Your task to perform on an android device: add a contact Image 0: 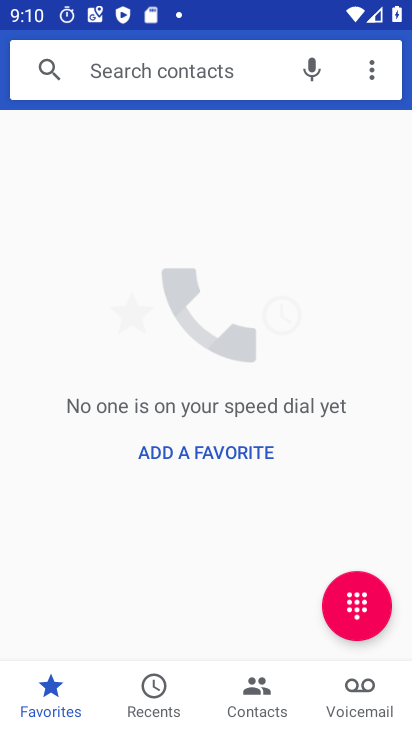
Step 0: press home button
Your task to perform on an android device: add a contact Image 1: 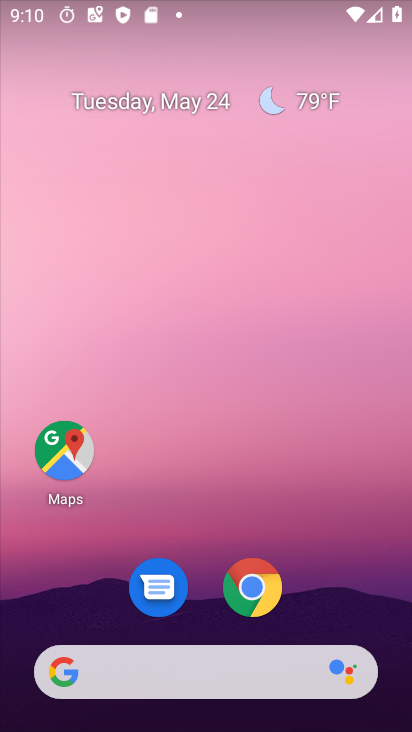
Step 1: drag from (314, 590) to (288, 210)
Your task to perform on an android device: add a contact Image 2: 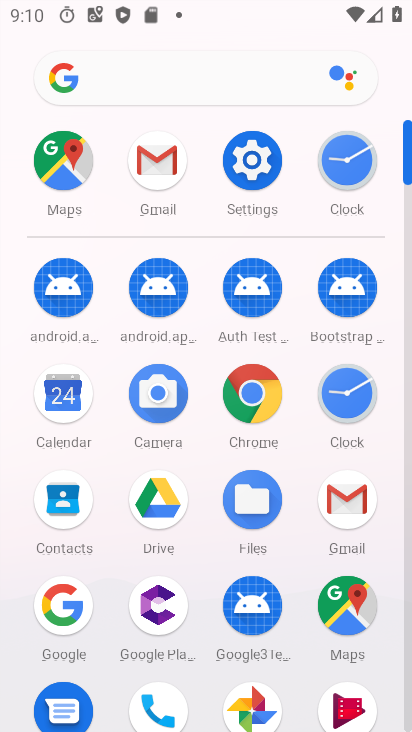
Step 2: click (62, 499)
Your task to perform on an android device: add a contact Image 3: 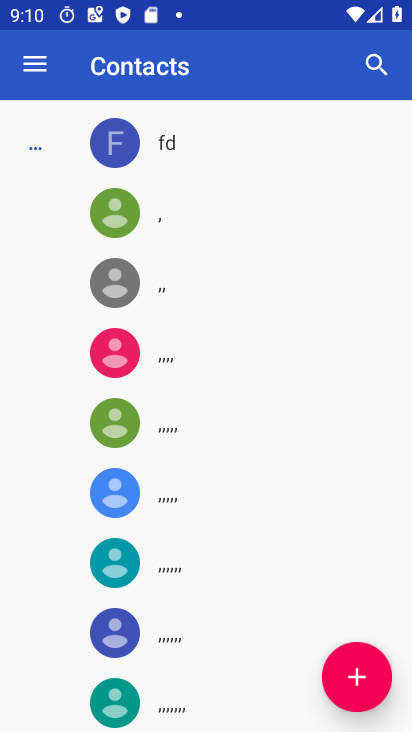
Step 3: click (357, 673)
Your task to perform on an android device: add a contact Image 4: 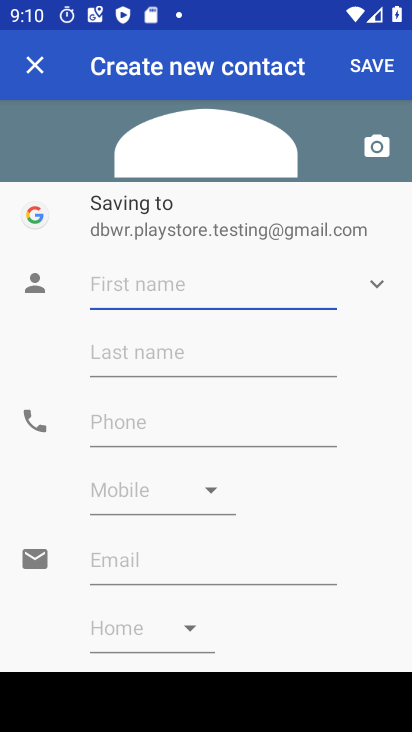
Step 4: type "Pradeep mani tripathi"
Your task to perform on an android device: add a contact Image 5: 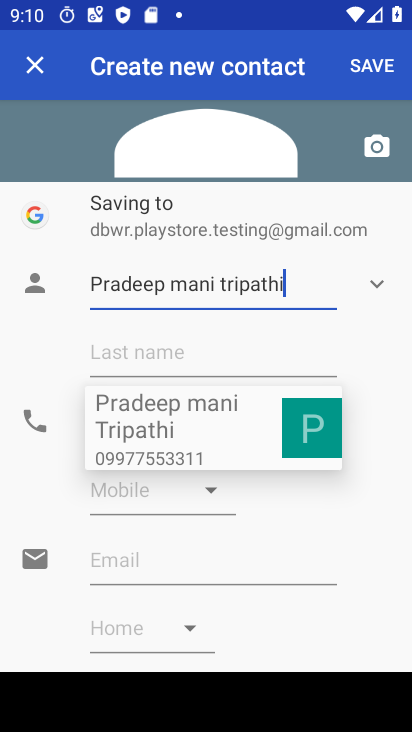
Step 5: click (145, 391)
Your task to perform on an android device: add a contact Image 6: 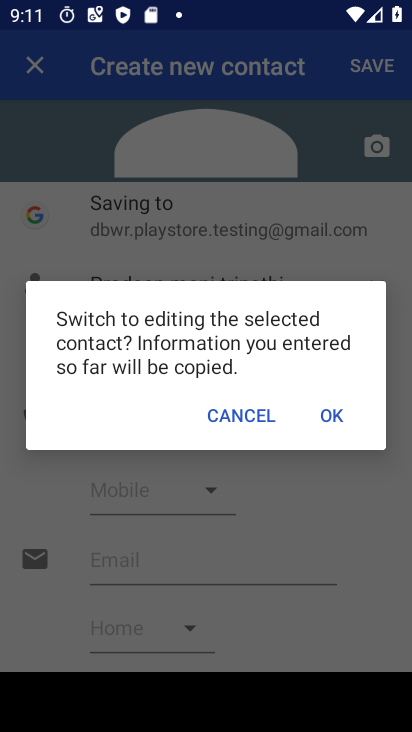
Step 6: click (325, 408)
Your task to perform on an android device: add a contact Image 7: 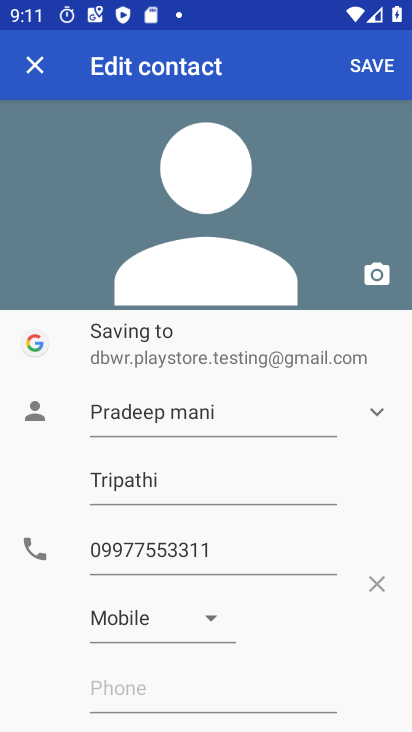
Step 7: click (380, 63)
Your task to perform on an android device: add a contact Image 8: 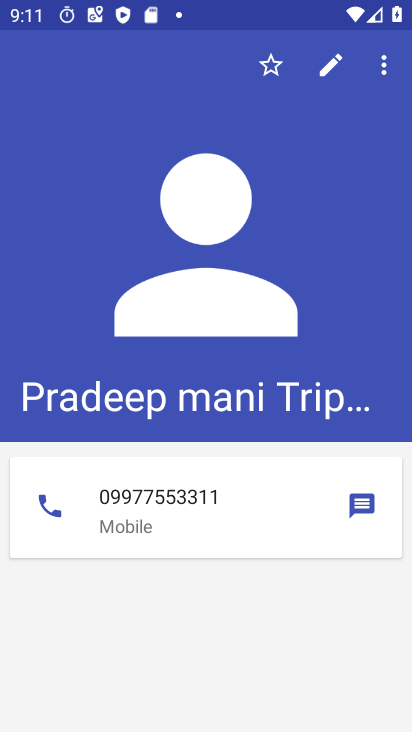
Step 8: task complete